Your task to perform on an android device: Open notification settings Image 0: 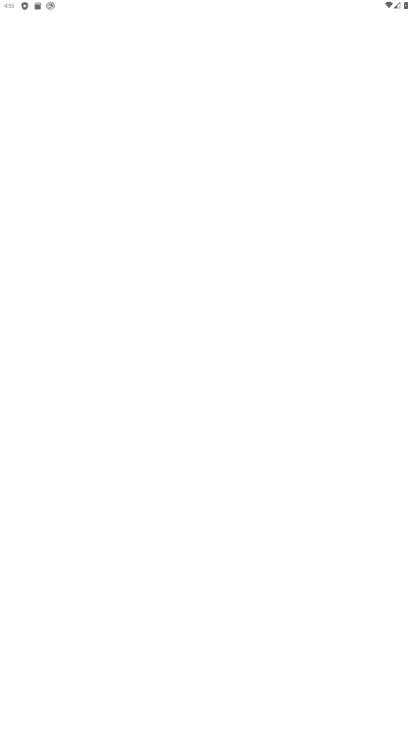
Step 0: press home button
Your task to perform on an android device: Open notification settings Image 1: 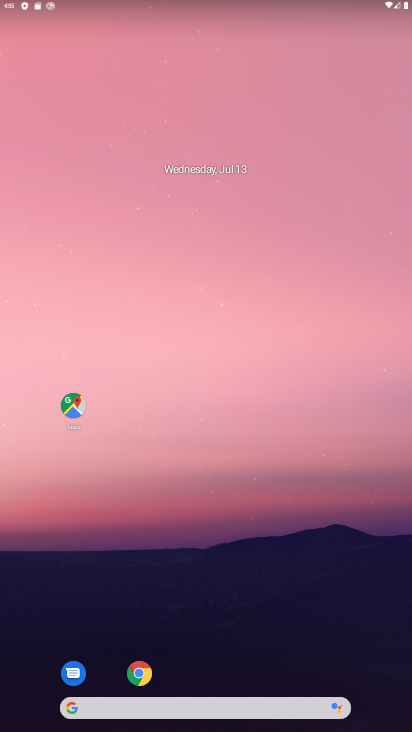
Step 1: drag from (215, 639) to (305, 198)
Your task to perform on an android device: Open notification settings Image 2: 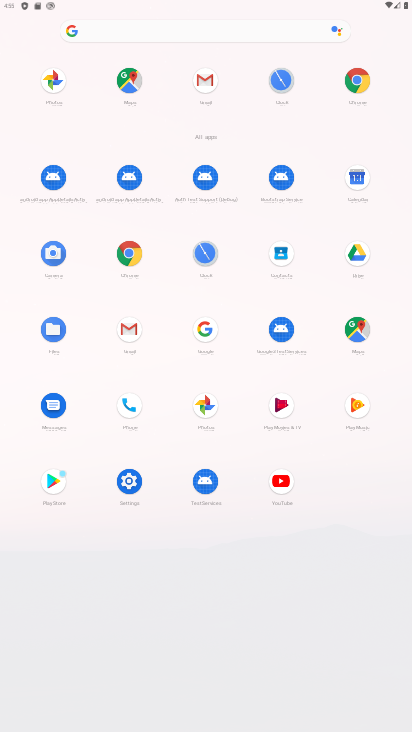
Step 2: click (122, 491)
Your task to perform on an android device: Open notification settings Image 3: 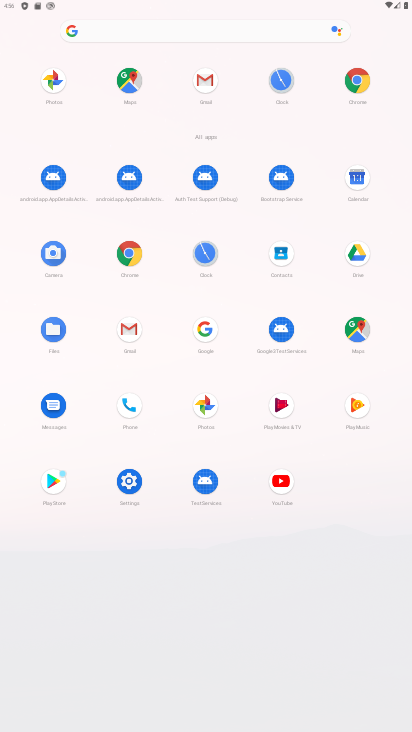
Step 3: click (133, 478)
Your task to perform on an android device: Open notification settings Image 4: 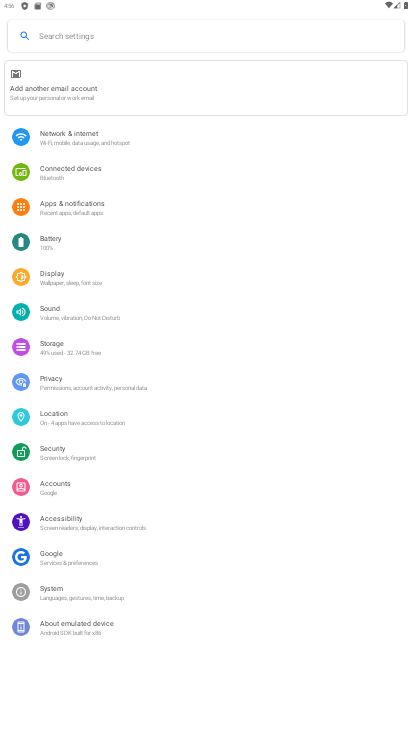
Step 4: click (94, 199)
Your task to perform on an android device: Open notification settings Image 5: 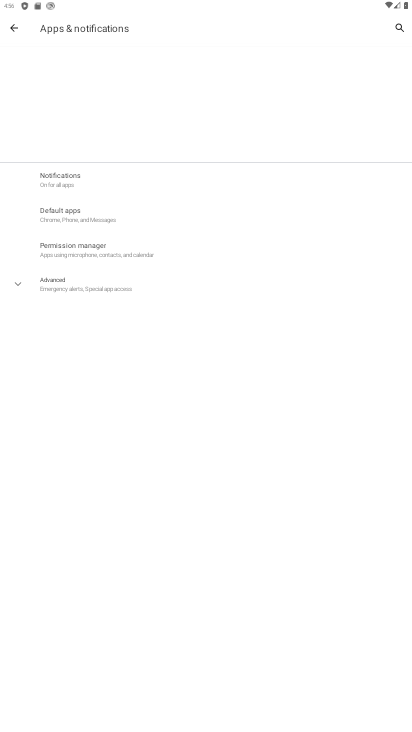
Step 5: click (113, 183)
Your task to perform on an android device: Open notification settings Image 6: 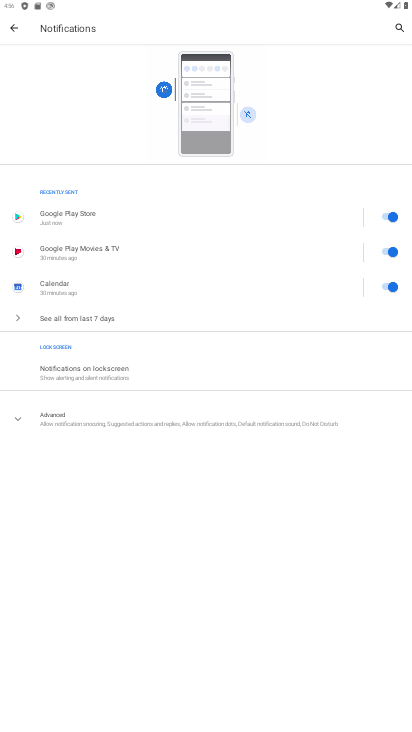
Step 6: task complete